Your task to perform on an android device: empty trash in the gmail app Image 0: 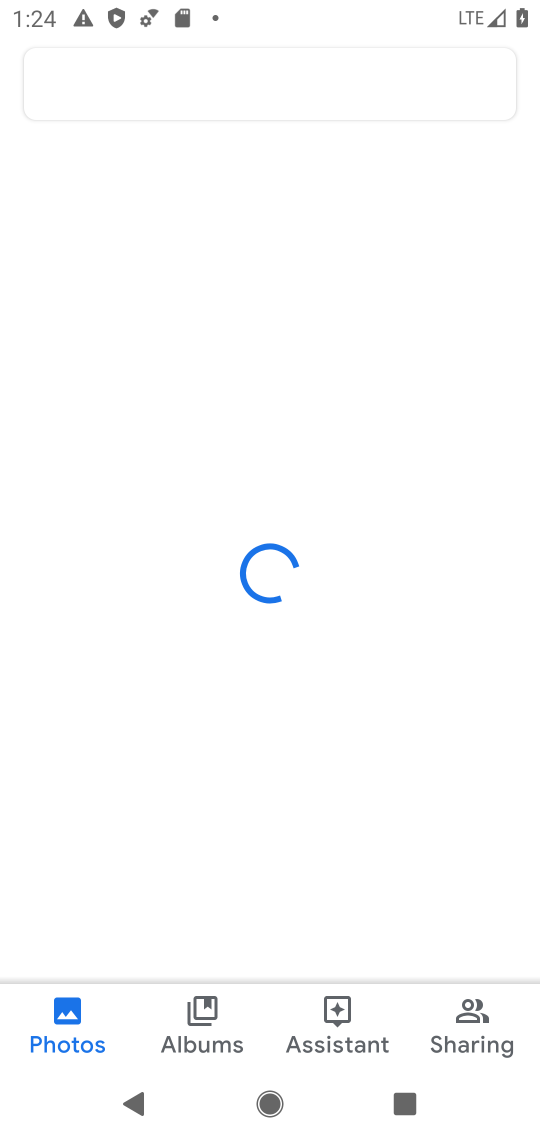
Step 0: press home button
Your task to perform on an android device: empty trash in the gmail app Image 1: 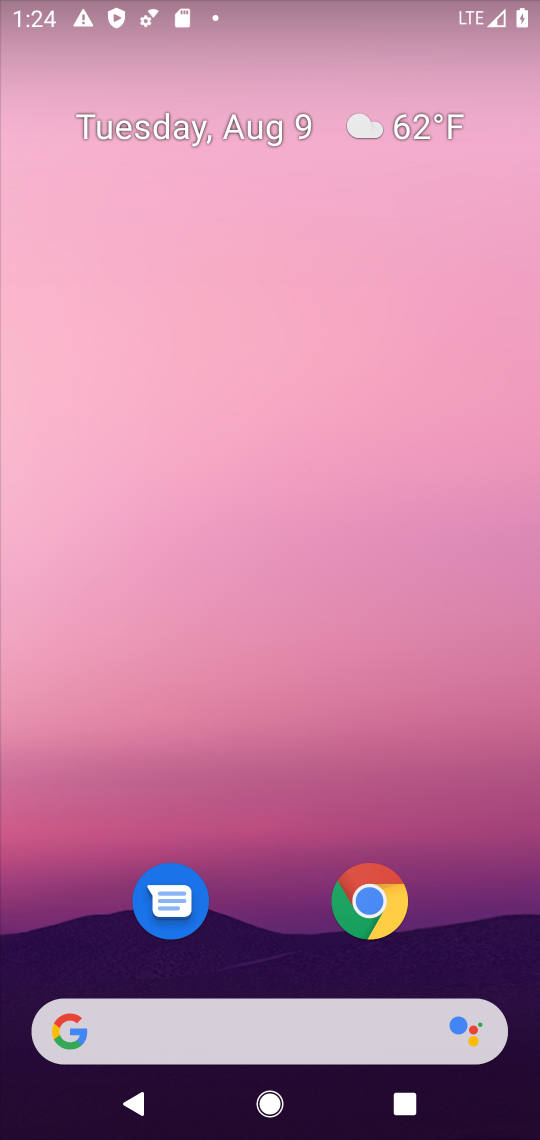
Step 1: drag from (520, 1012) to (486, 172)
Your task to perform on an android device: empty trash in the gmail app Image 2: 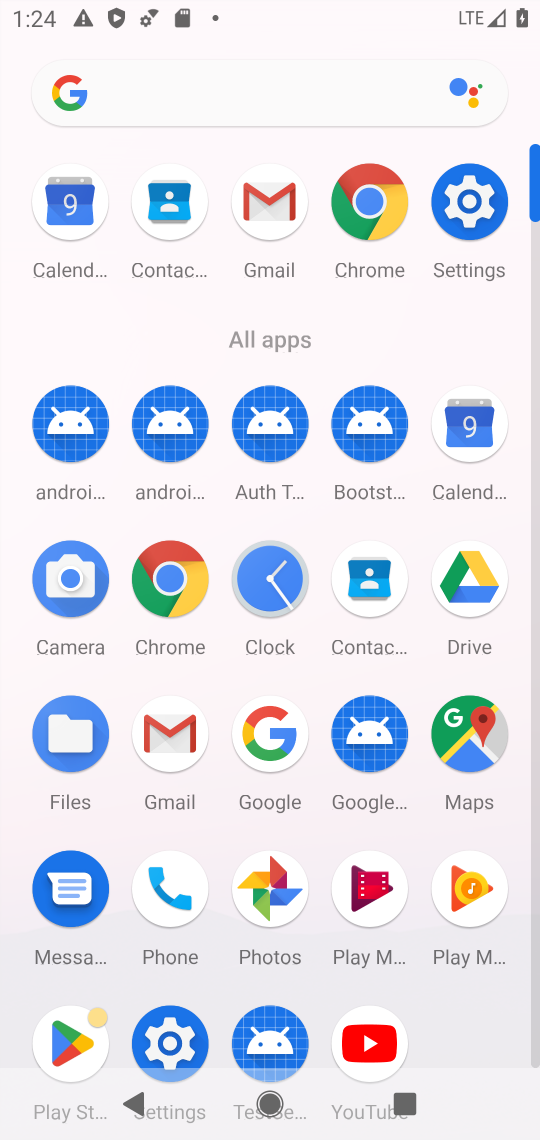
Step 2: click (166, 729)
Your task to perform on an android device: empty trash in the gmail app Image 3: 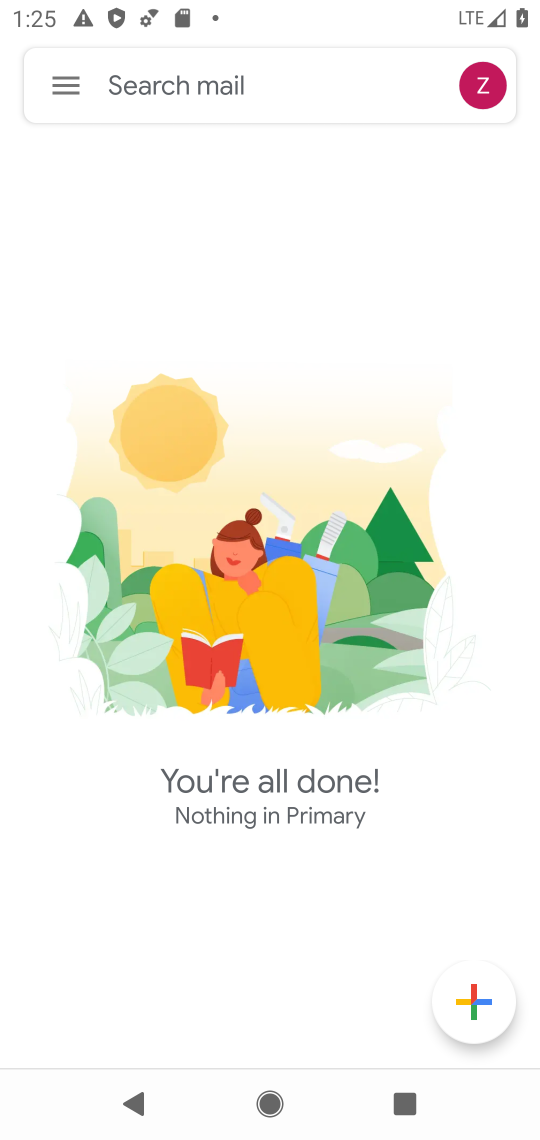
Step 3: click (60, 85)
Your task to perform on an android device: empty trash in the gmail app Image 4: 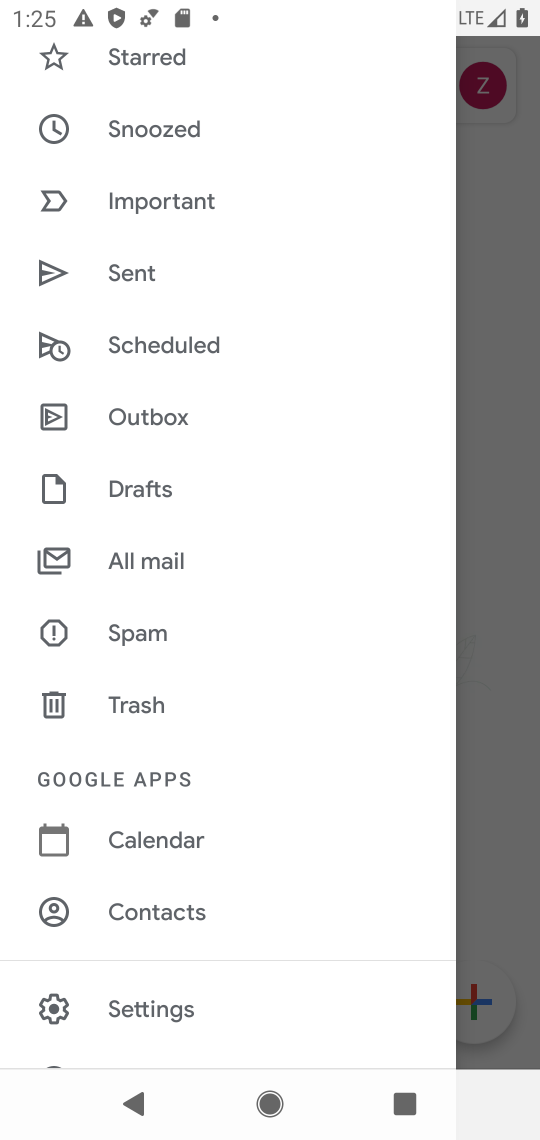
Step 4: click (125, 701)
Your task to perform on an android device: empty trash in the gmail app Image 5: 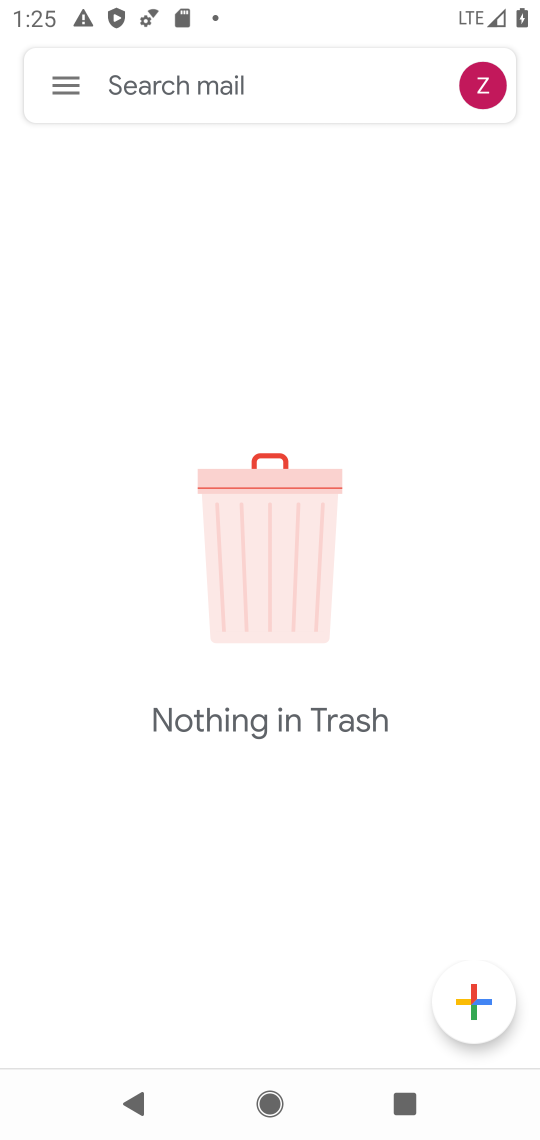
Step 5: task complete